Your task to perform on an android device: Search for good Indian restaurants Image 0: 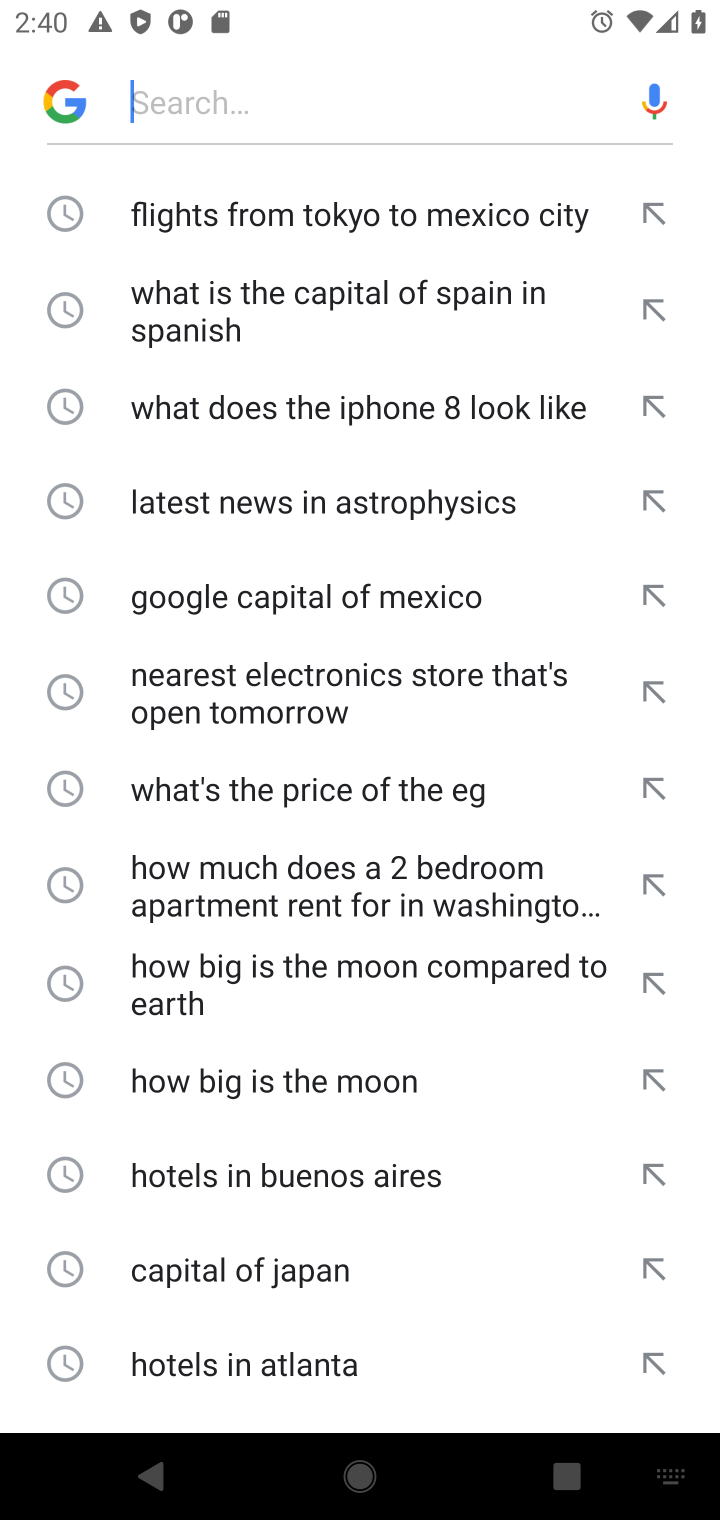
Step 0: click (265, 108)
Your task to perform on an android device: Search for good Indian restaurants Image 1: 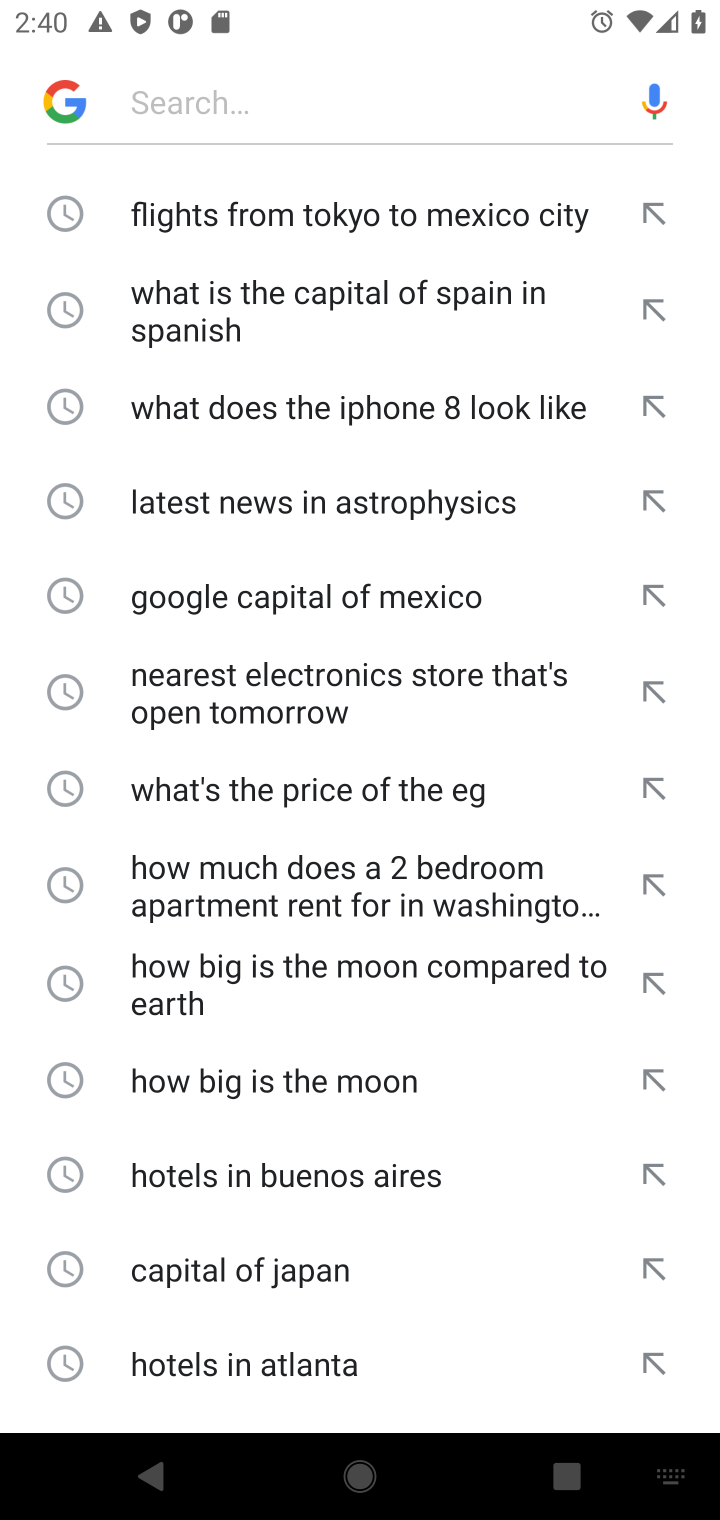
Step 1: type "good Indian restaurants"
Your task to perform on an android device: Search for good Indian restaurants Image 2: 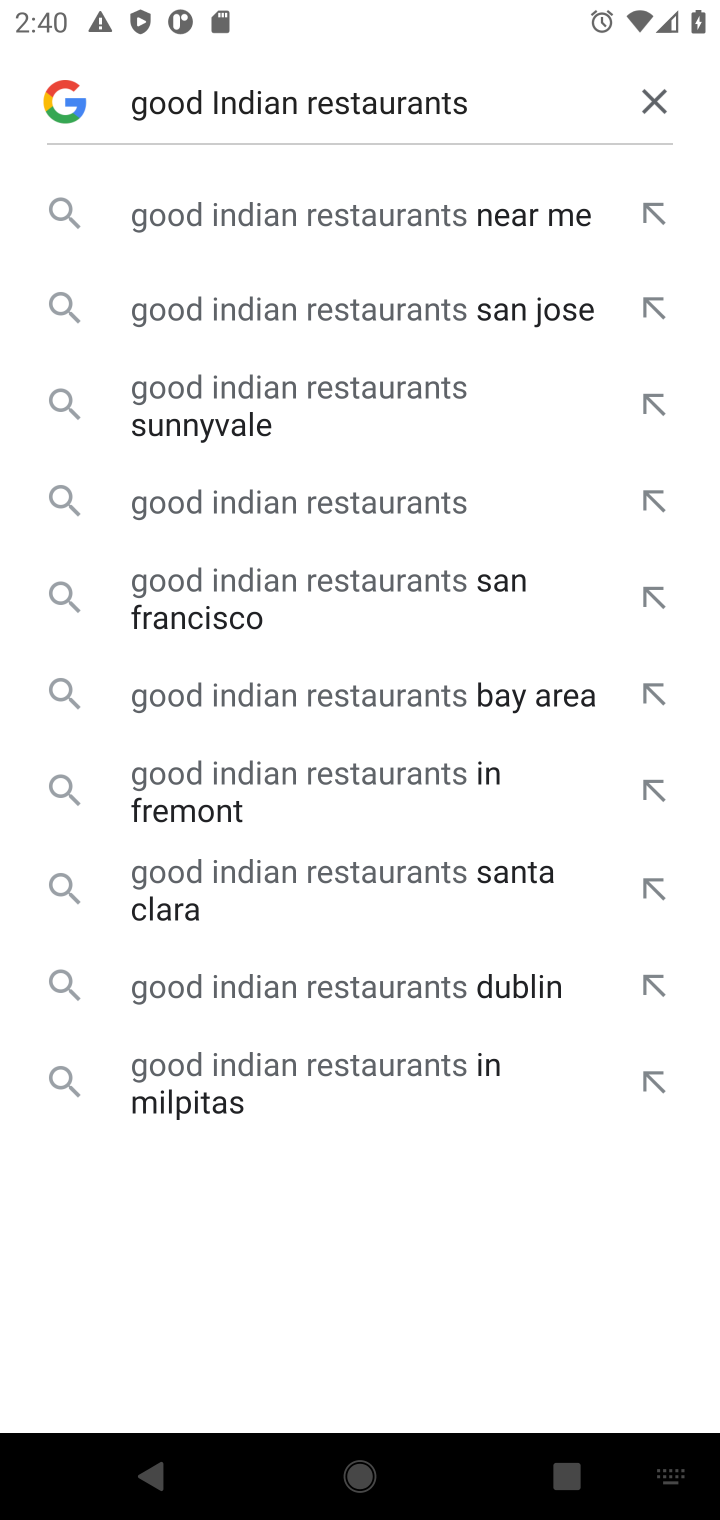
Step 2: press enter
Your task to perform on an android device: Search for good Indian restaurants Image 3: 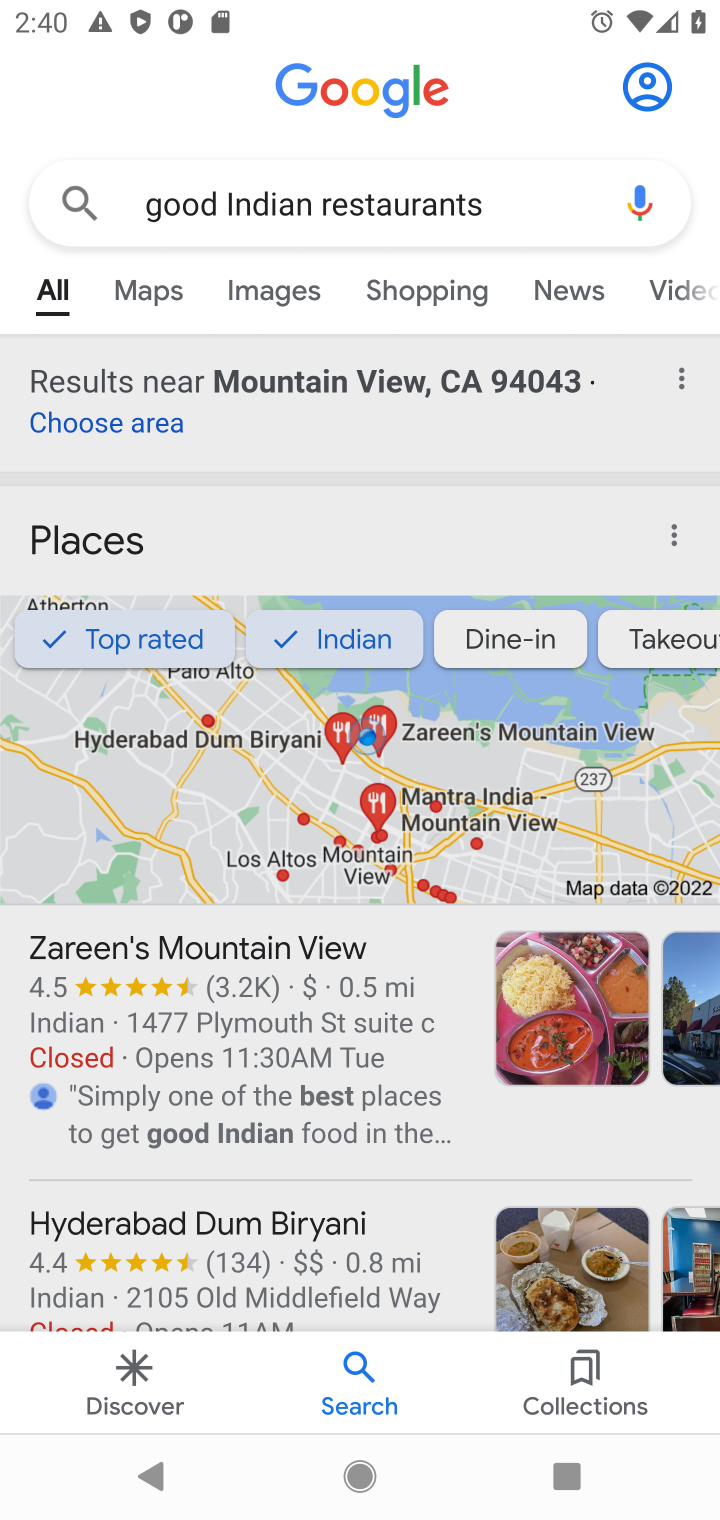
Step 3: drag from (421, 1088) to (351, 733)
Your task to perform on an android device: Search for good Indian restaurants Image 4: 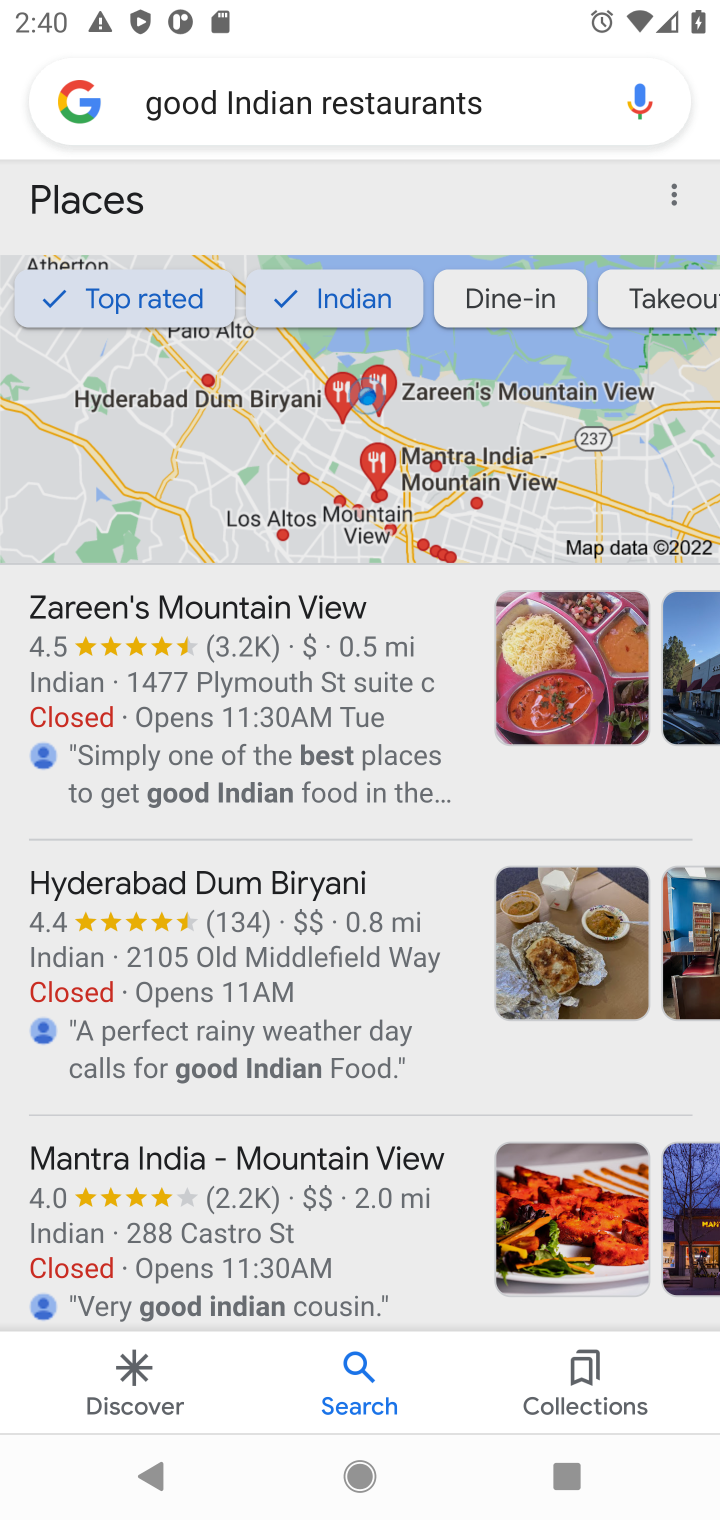
Step 4: drag from (430, 1124) to (397, 708)
Your task to perform on an android device: Search for good Indian restaurants Image 5: 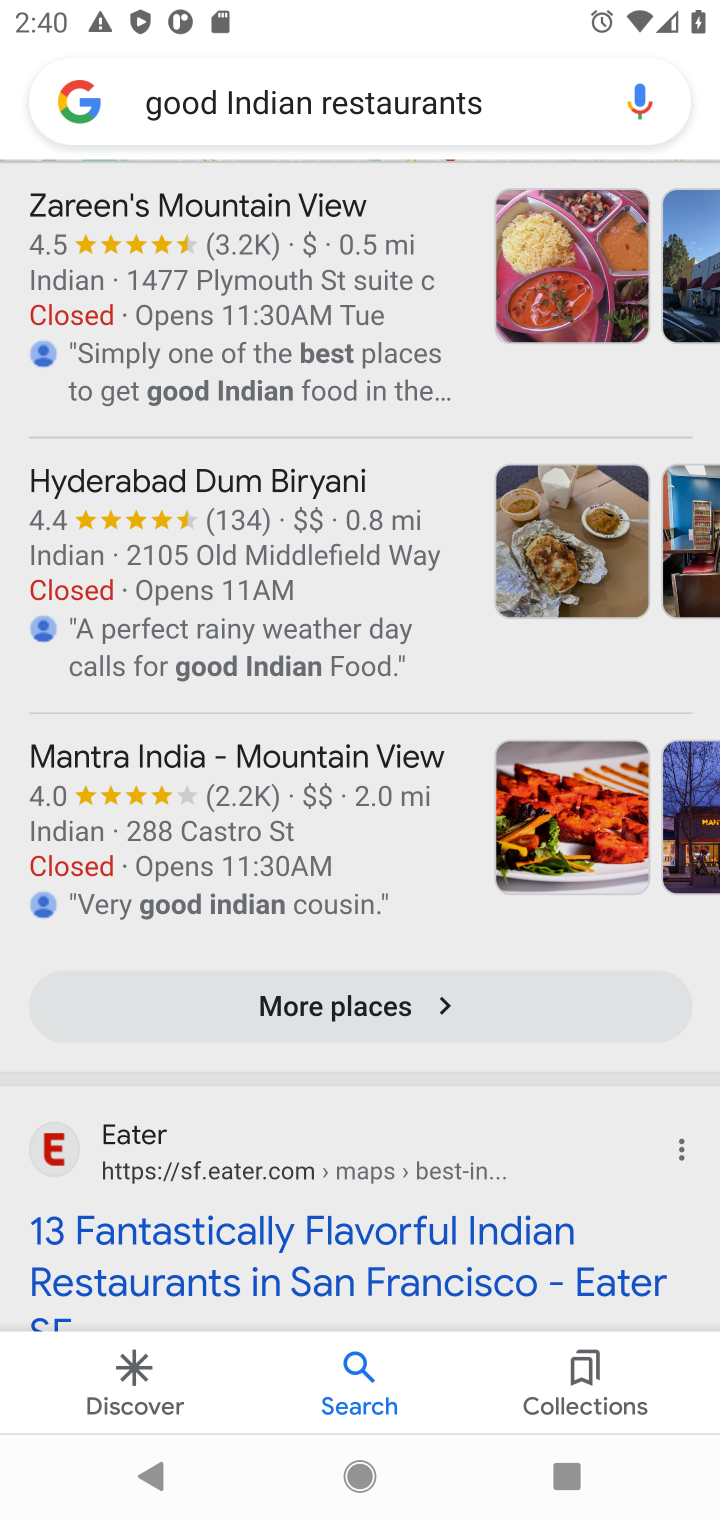
Step 5: click (346, 1012)
Your task to perform on an android device: Search for good Indian restaurants Image 6: 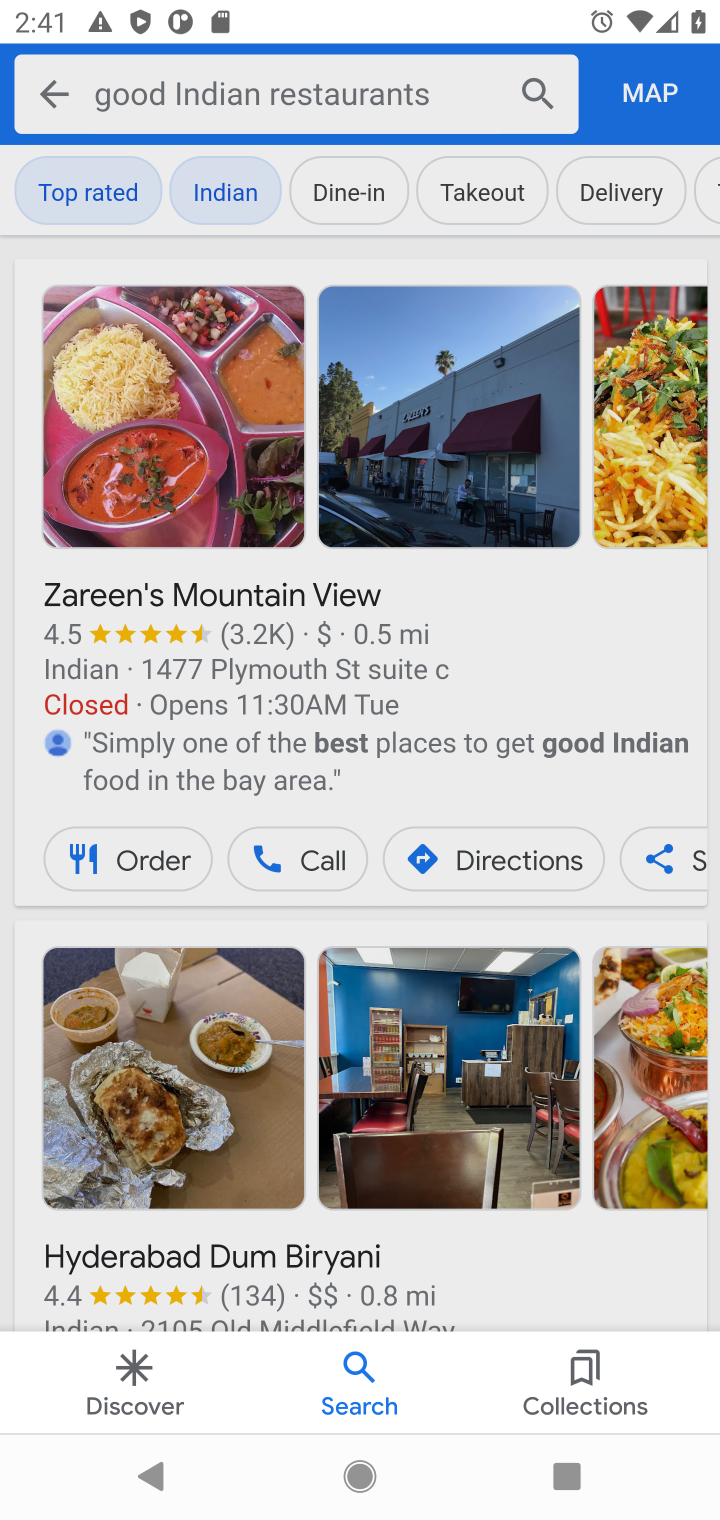
Step 6: task complete